Your task to perform on an android device: When is my next appointment? Image 0: 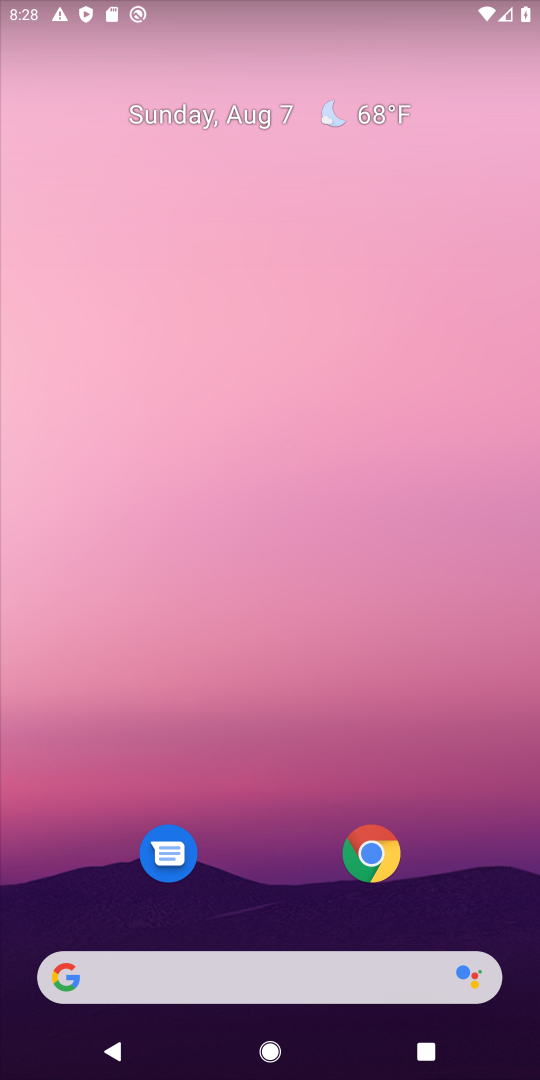
Step 0: drag from (265, 929) to (264, 292)
Your task to perform on an android device: When is my next appointment? Image 1: 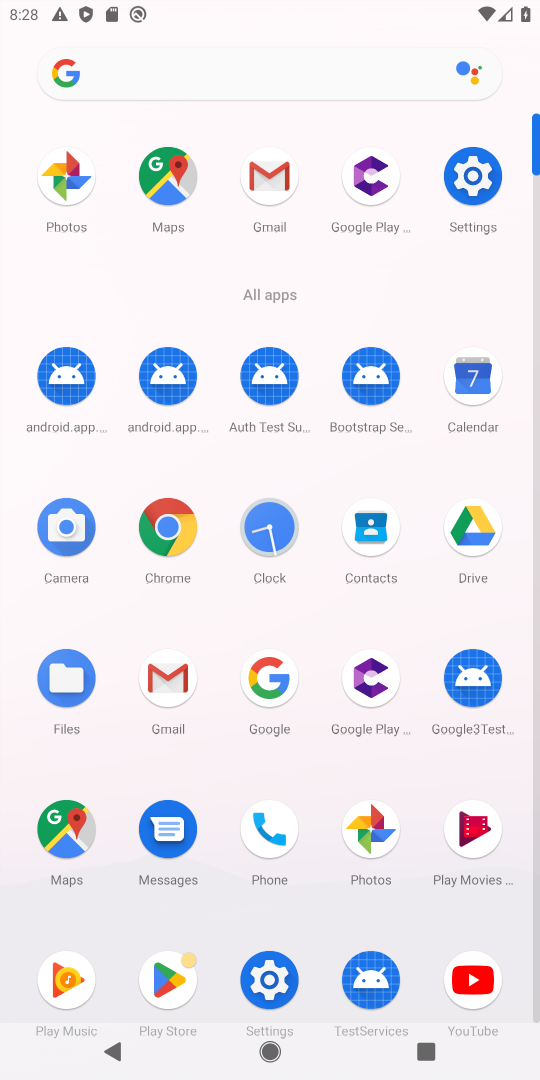
Step 1: click (480, 368)
Your task to perform on an android device: When is my next appointment? Image 2: 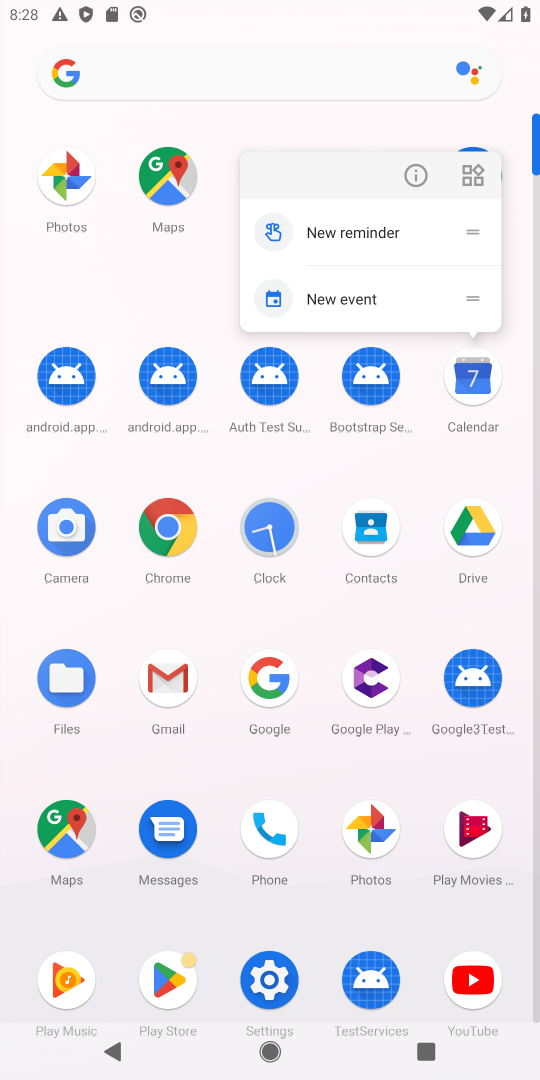
Step 2: click (480, 366)
Your task to perform on an android device: When is my next appointment? Image 3: 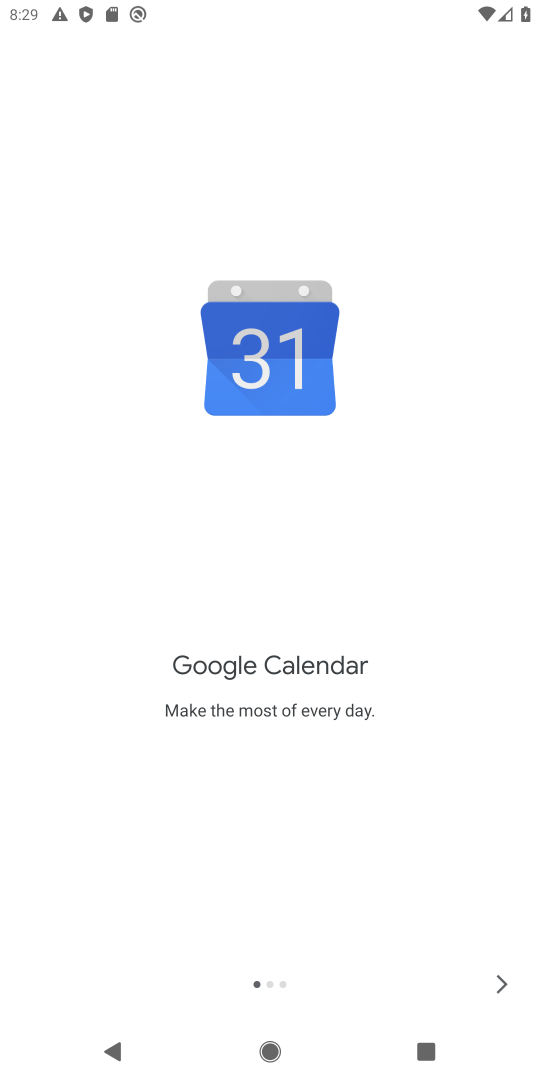
Step 3: click (490, 958)
Your task to perform on an android device: When is my next appointment? Image 4: 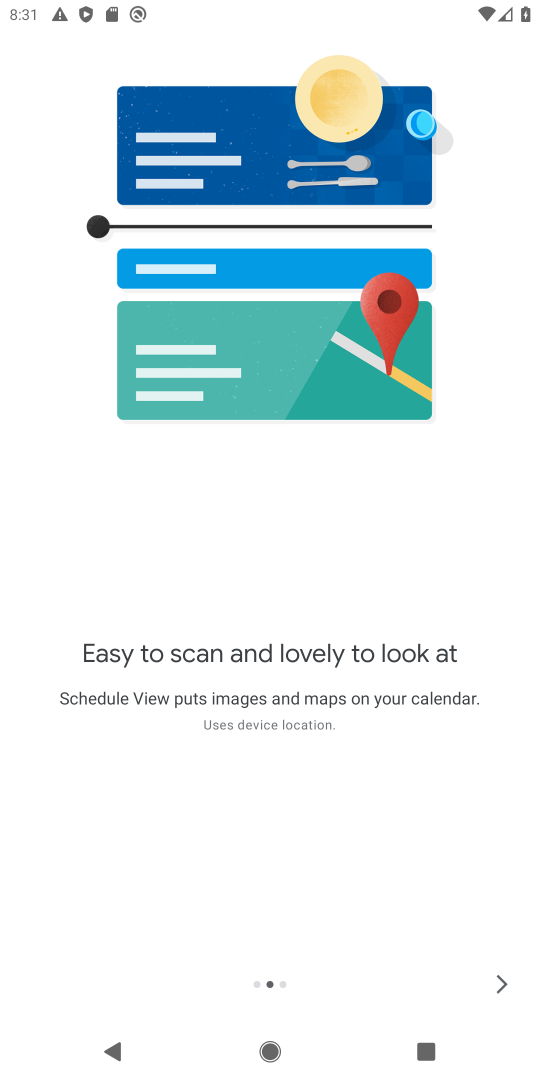
Step 4: click (498, 969)
Your task to perform on an android device: When is my next appointment? Image 5: 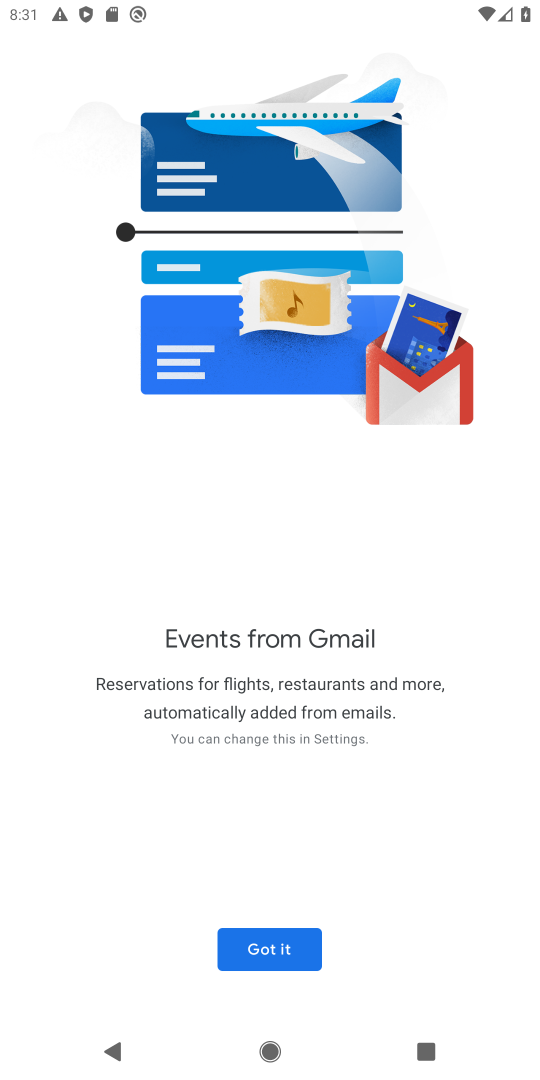
Step 5: click (296, 954)
Your task to perform on an android device: When is my next appointment? Image 6: 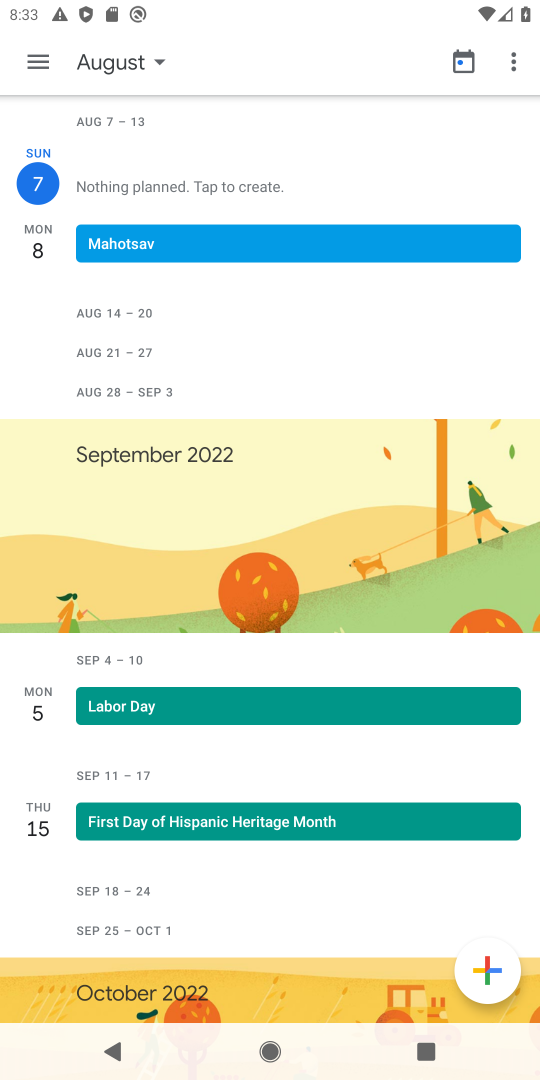
Step 6: click (37, 40)
Your task to perform on an android device: When is my next appointment? Image 7: 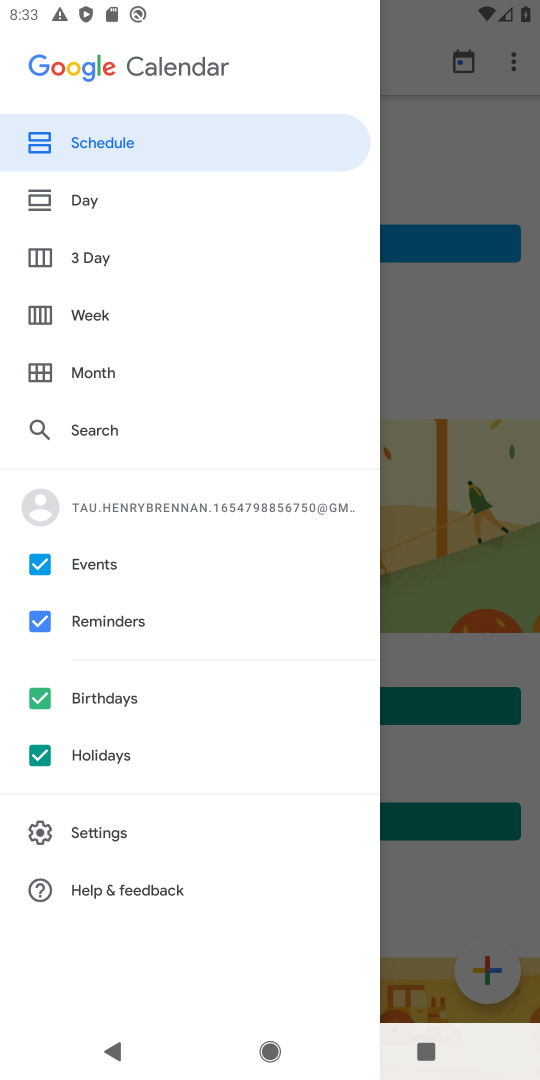
Step 7: click (104, 377)
Your task to perform on an android device: When is my next appointment? Image 8: 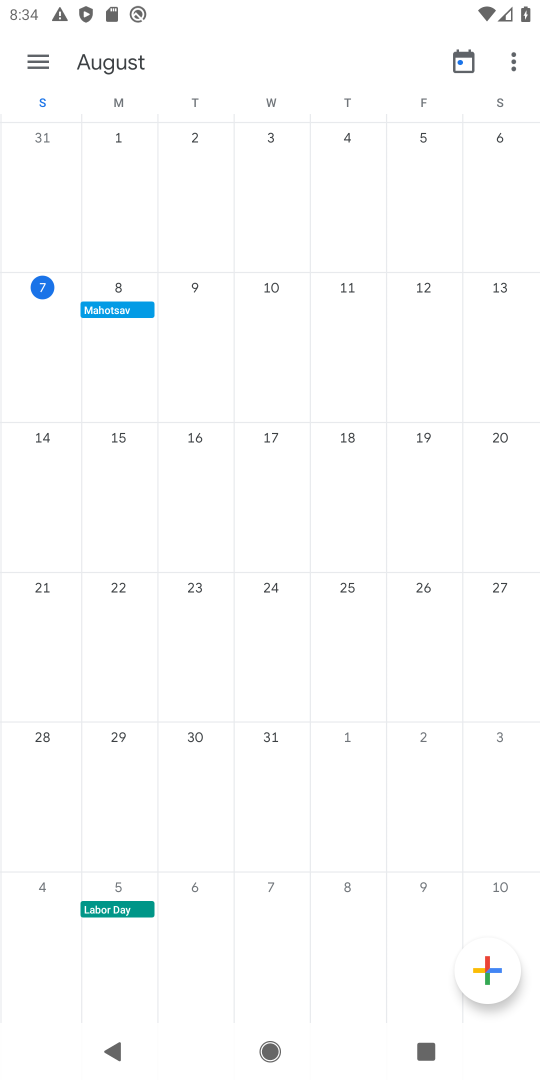
Step 8: task complete